Your task to perform on an android device: Go to Wikipedia Image 0: 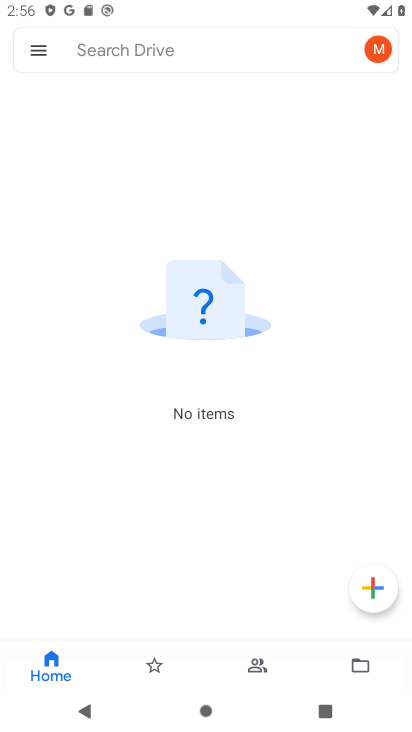
Step 0: press home button
Your task to perform on an android device: Go to Wikipedia Image 1: 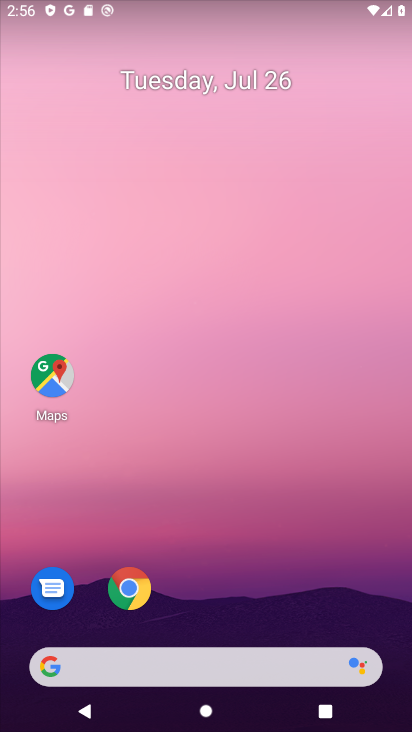
Step 1: click (125, 590)
Your task to perform on an android device: Go to Wikipedia Image 2: 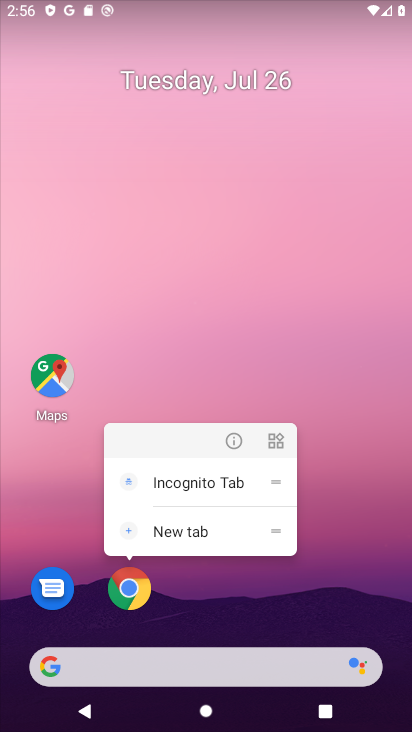
Step 2: click (125, 590)
Your task to perform on an android device: Go to Wikipedia Image 3: 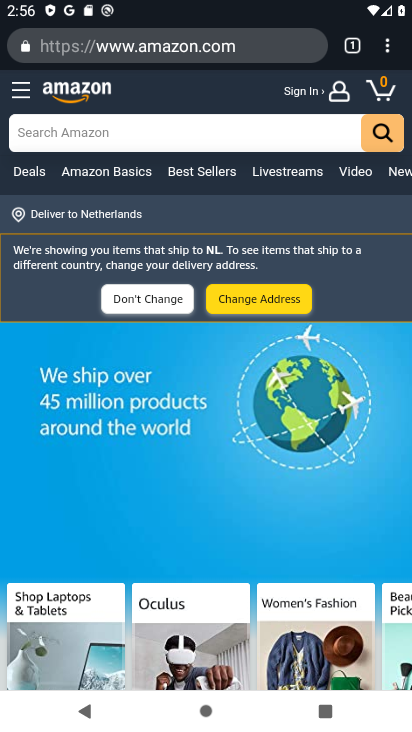
Step 3: click (358, 42)
Your task to perform on an android device: Go to Wikipedia Image 4: 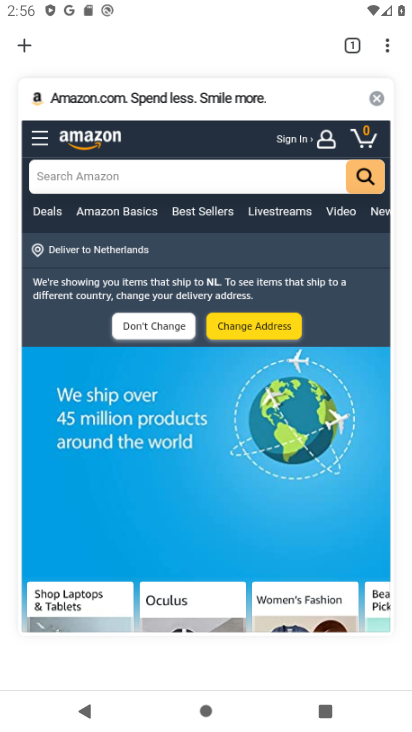
Step 4: click (17, 52)
Your task to perform on an android device: Go to Wikipedia Image 5: 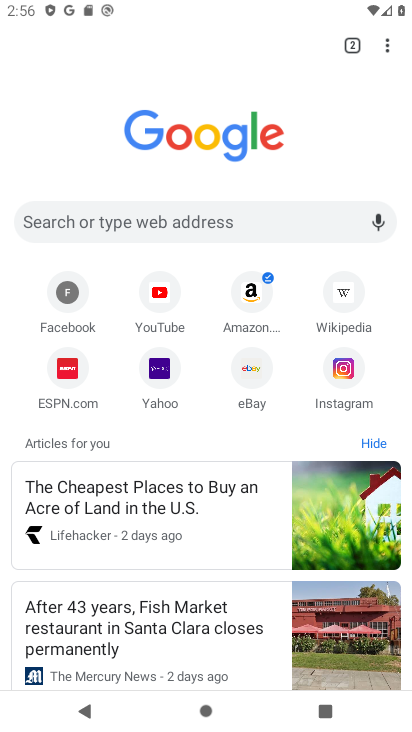
Step 5: click (336, 307)
Your task to perform on an android device: Go to Wikipedia Image 6: 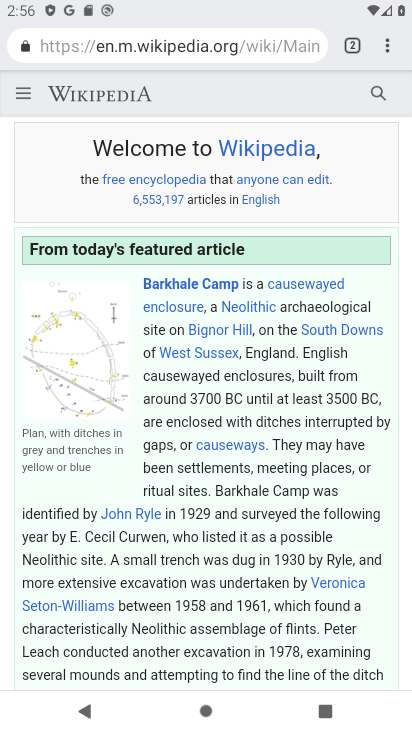
Step 6: task complete